Your task to perform on an android device: check the backup settings in the google photos Image 0: 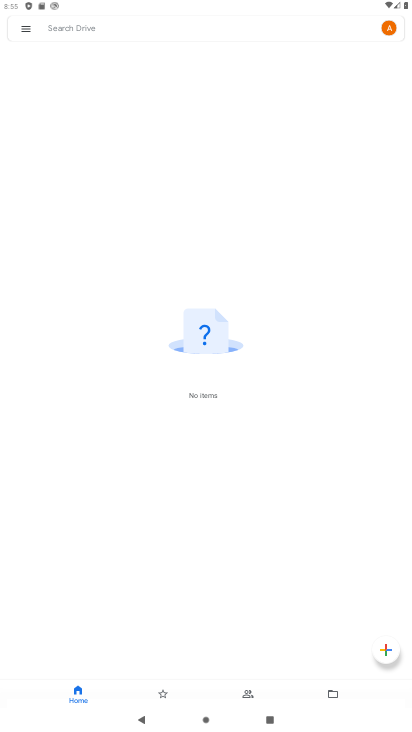
Step 0: press home button
Your task to perform on an android device: check the backup settings in the google photos Image 1: 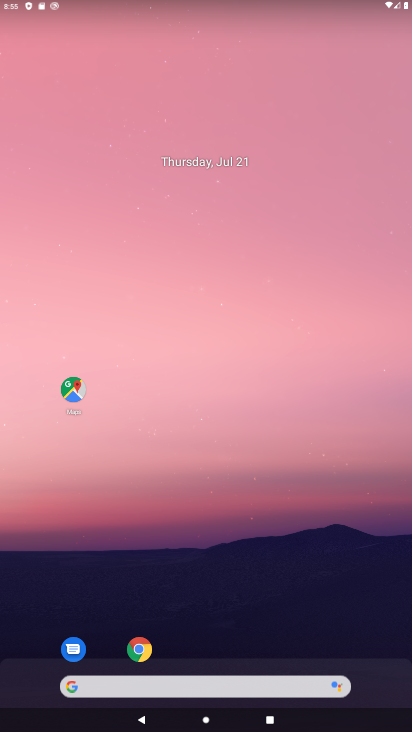
Step 1: drag from (248, 590) to (265, 56)
Your task to perform on an android device: check the backup settings in the google photos Image 2: 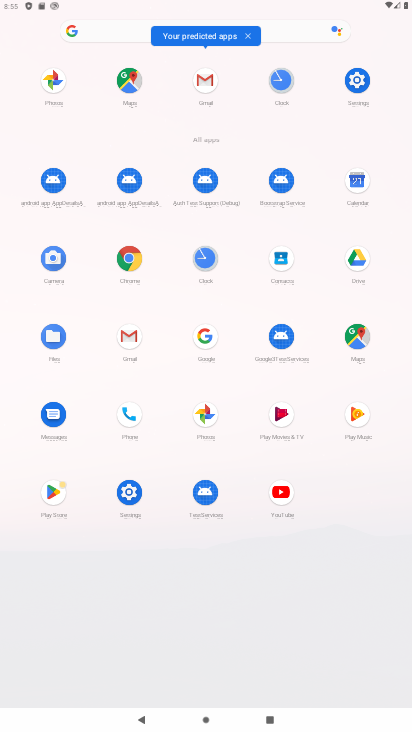
Step 2: click (206, 413)
Your task to perform on an android device: check the backup settings in the google photos Image 3: 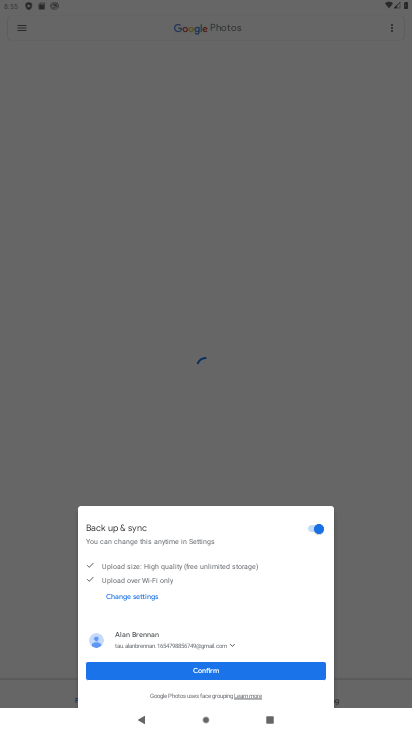
Step 3: click (241, 671)
Your task to perform on an android device: check the backup settings in the google photos Image 4: 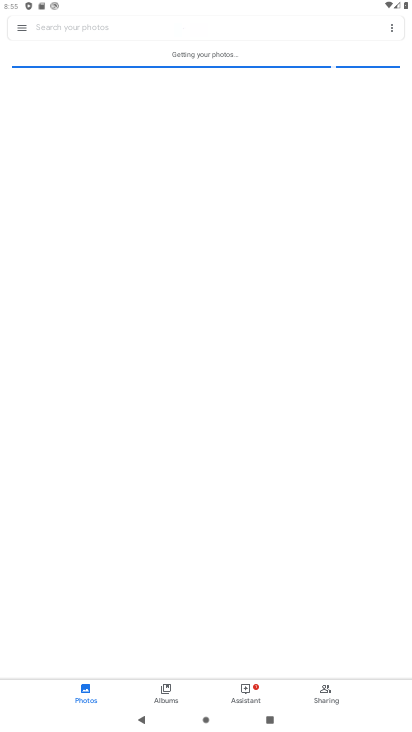
Step 4: click (15, 30)
Your task to perform on an android device: check the backup settings in the google photos Image 5: 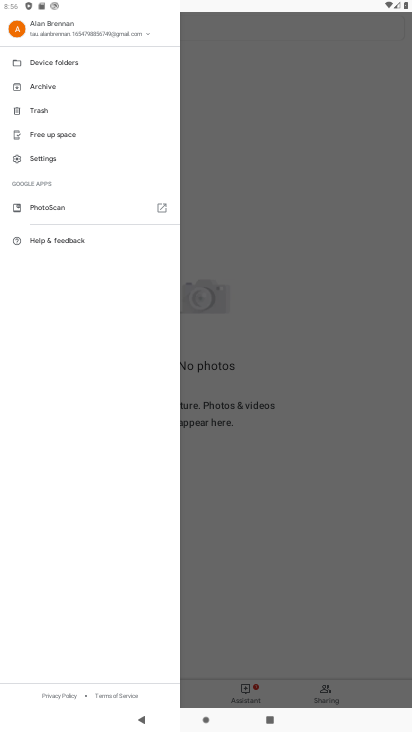
Step 5: click (68, 160)
Your task to perform on an android device: check the backup settings in the google photos Image 6: 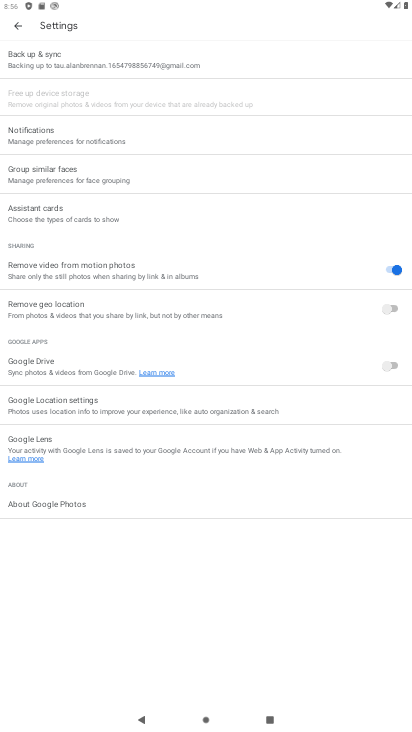
Step 6: click (137, 65)
Your task to perform on an android device: check the backup settings in the google photos Image 7: 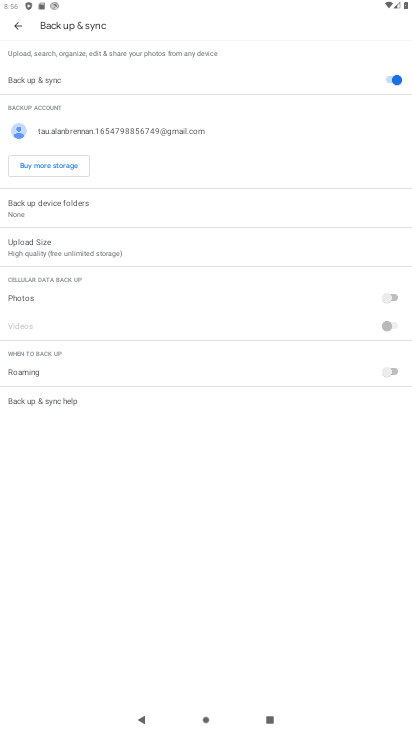
Step 7: task complete